Your task to perform on an android device: Toggle the flashlight Image 0: 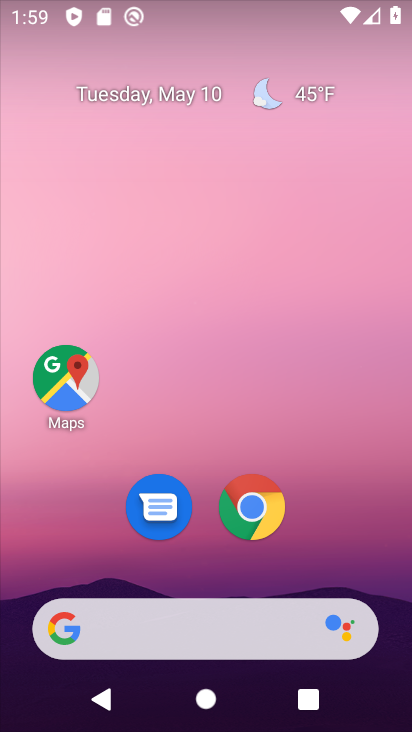
Step 0: drag from (315, 533) to (294, 122)
Your task to perform on an android device: Toggle the flashlight Image 1: 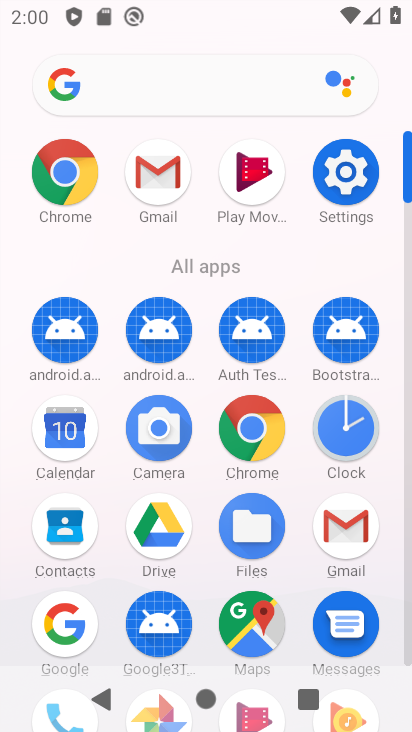
Step 1: click (362, 166)
Your task to perform on an android device: Toggle the flashlight Image 2: 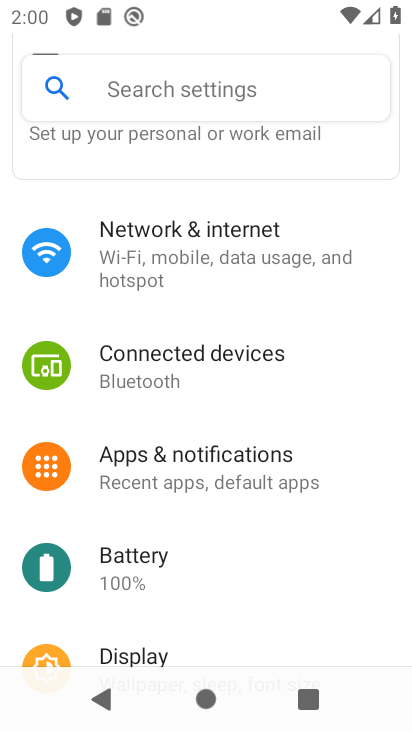
Step 2: click (181, 86)
Your task to perform on an android device: Toggle the flashlight Image 3: 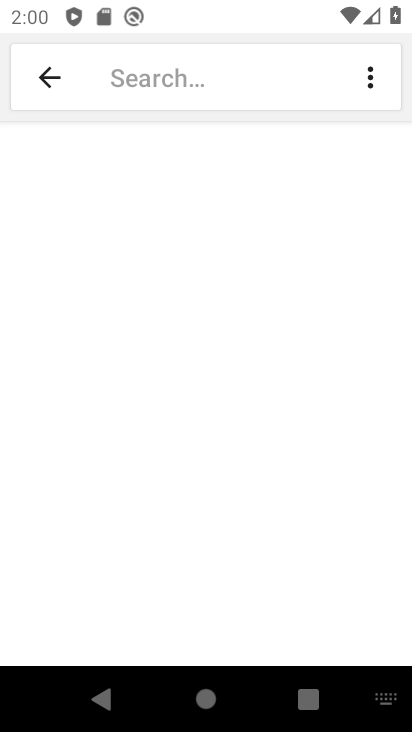
Step 3: type "flashlight"
Your task to perform on an android device: Toggle the flashlight Image 4: 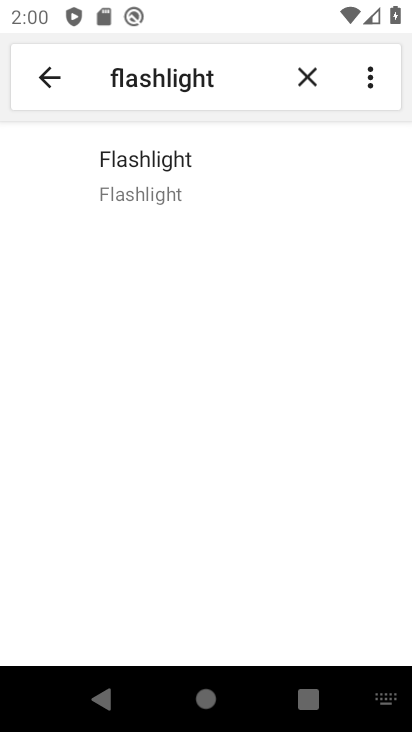
Step 4: click (180, 184)
Your task to perform on an android device: Toggle the flashlight Image 5: 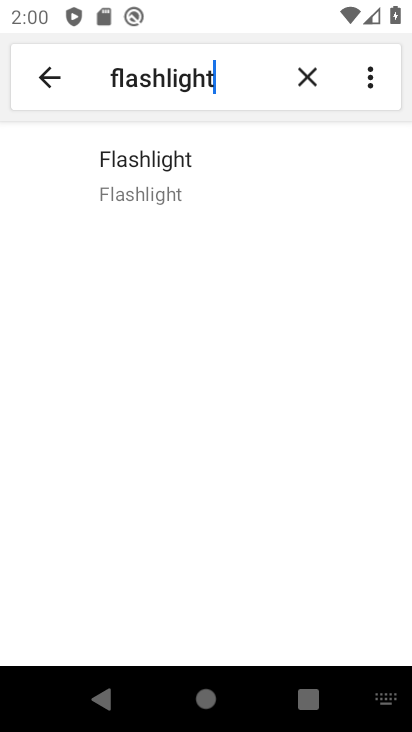
Step 5: click (176, 181)
Your task to perform on an android device: Toggle the flashlight Image 6: 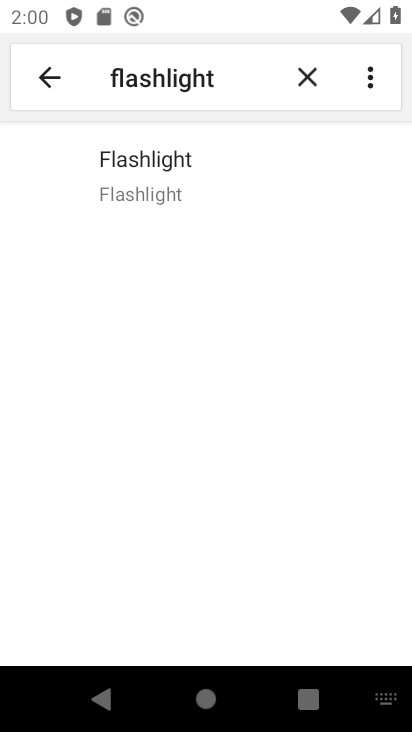
Step 6: click (176, 181)
Your task to perform on an android device: Toggle the flashlight Image 7: 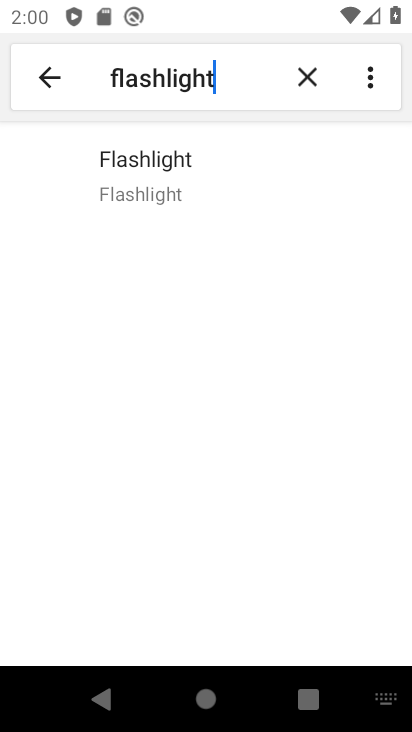
Step 7: task complete